Your task to perform on an android device: turn on translation in the chrome app Image 0: 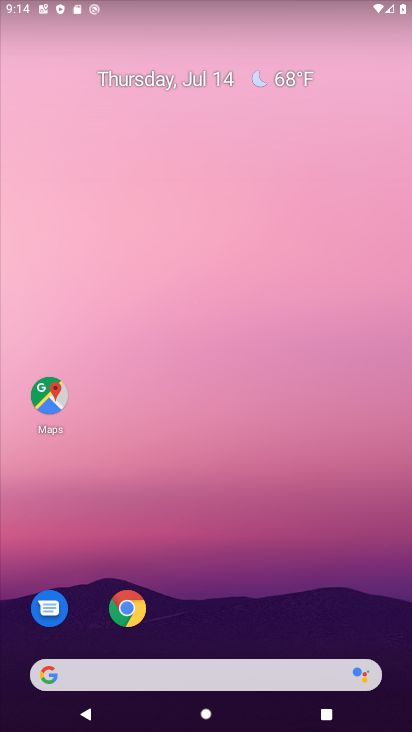
Step 0: click (134, 619)
Your task to perform on an android device: turn on translation in the chrome app Image 1: 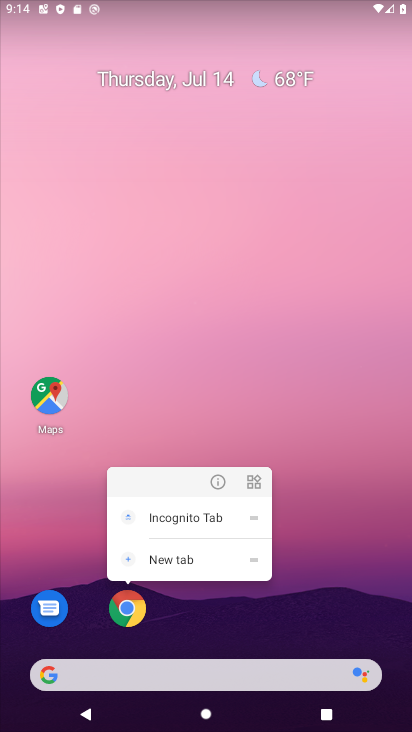
Step 1: click (125, 611)
Your task to perform on an android device: turn on translation in the chrome app Image 2: 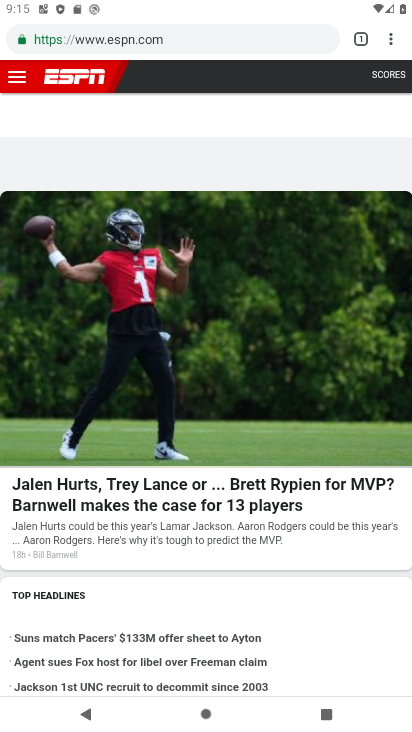
Step 2: drag from (395, 43) to (293, 480)
Your task to perform on an android device: turn on translation in the chrome app Image 3: 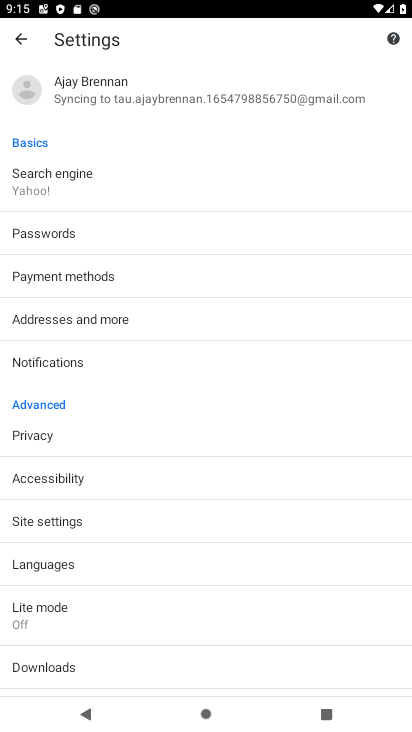
Step 3: click (88, 559)
Your task to perform on an android device: turn on translation in the chrome app Image 4: 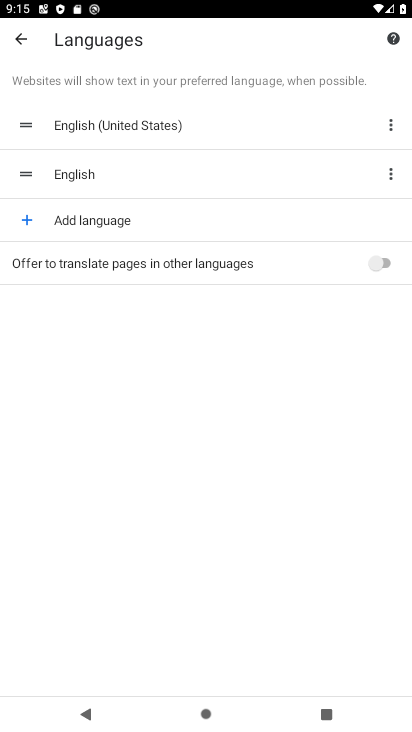
Step 4: click (376, 258)
Your task to perform on an android device: turn on translation in the chrome app Image 5: 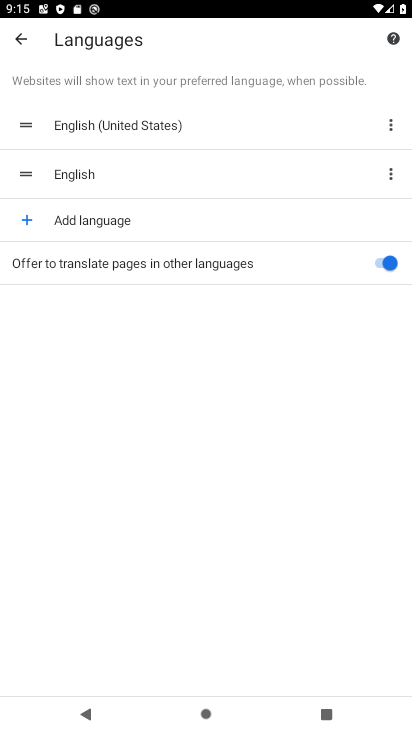
Step 5: task complete